Your task to perform on an android device: turn off location Image 0: 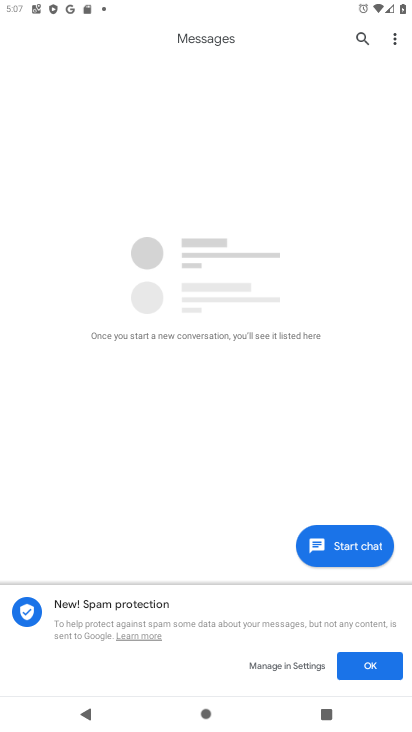
Step 0: press home button
Your task to perform on an android device: turn off location Image 1: 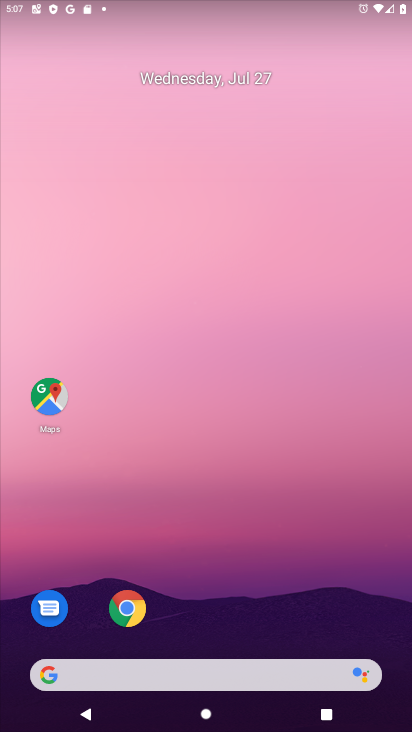
Step 1: drag from (220, 623) to (144, 103)
Your task to perform on an android device: turn off location Image 2: 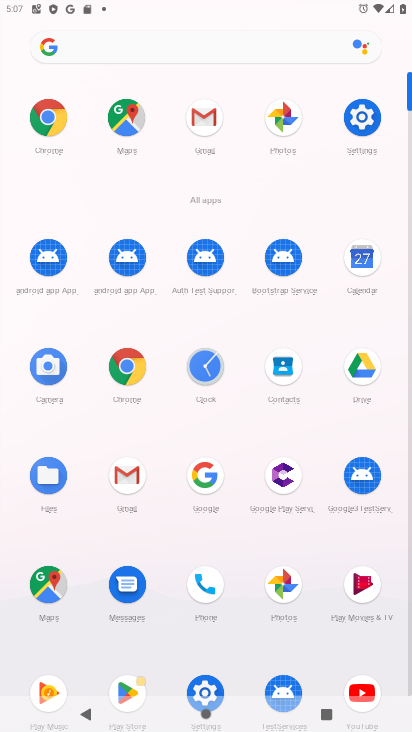
Step 2: click (364, 140)
Your task to perform on an android device: turn off location Image 3: 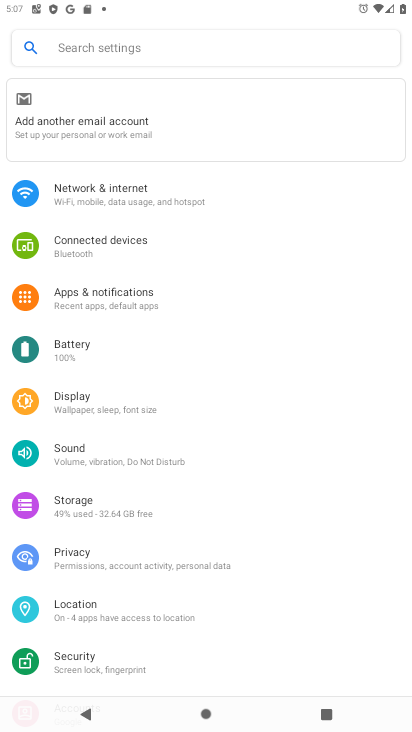
Step 3: click (42, 618)
Your task to perform on an android device: turn off location Image 4: 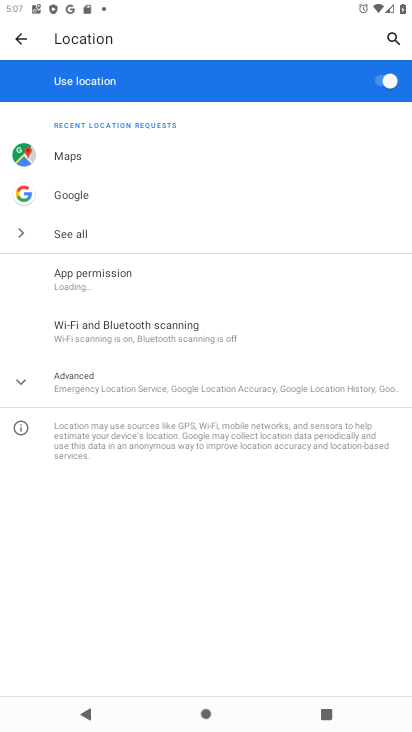
Step 4: click (377, 76)
Your task to perform on an android device: turn off location Image 5: 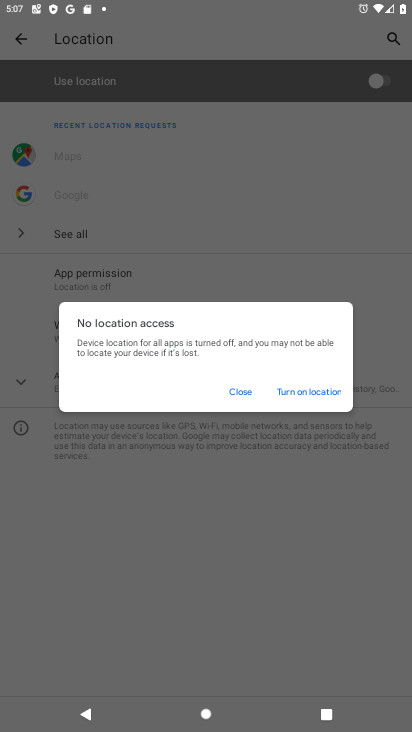
Step 5: click (247, 391)
Your task to perform on an android device: turn off location Image 6: 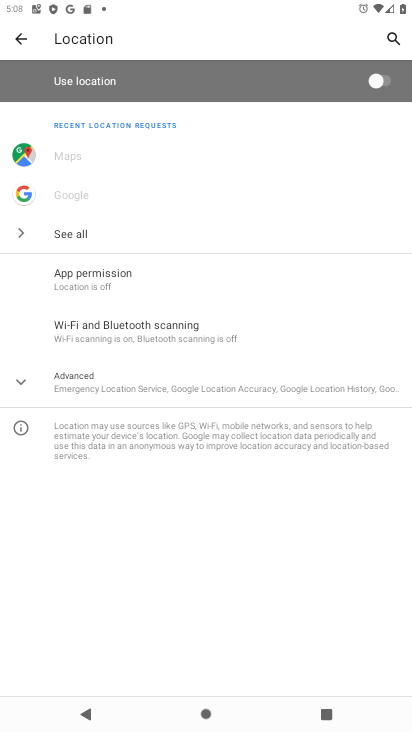
Step 6: task complete